Your task to perform on an android device: Open Maps and search for coffee Image 0: 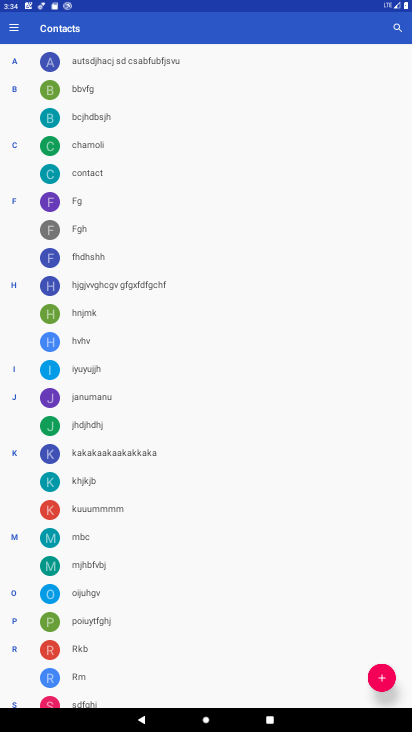
Step 0: press home button
Your task to perform on an android device: Open Maps and search for coffee Image 1: 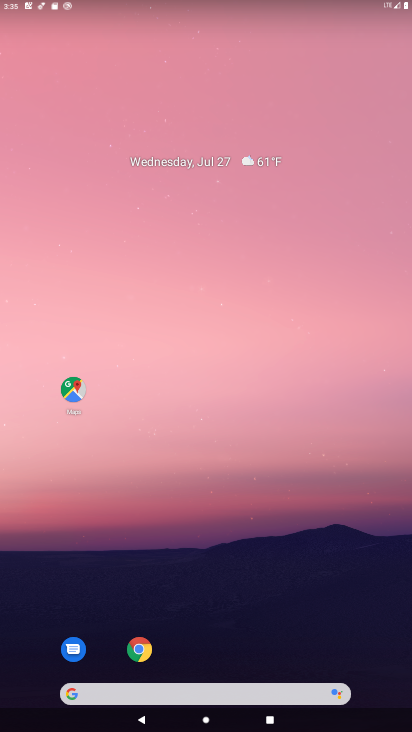
Step 1: drag from (190, 347) to (189, 231)
Your task to perform on an android device: Open Maps and search for coffee Image 2: 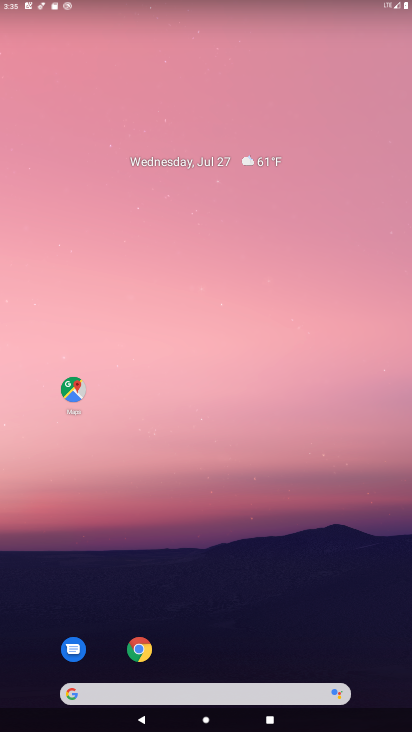
Step 2: drag from (187, 607) to (186, 258)
Your task to perform on an android device: Open Maps and search for coffee Image 3: 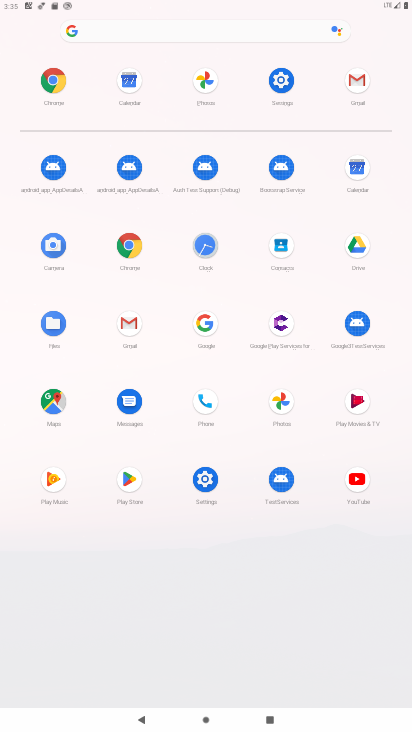
Step 3: click (45, 415)
Your task to perform on an android device: Open Maps and search for coffee Image 4: 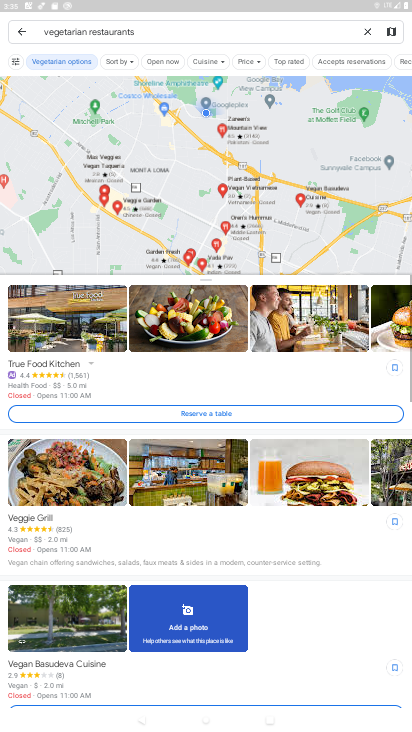
Step 4: click (21, 29)
Your task to perform on an android device: Open Maps and search for coffee Image 5: 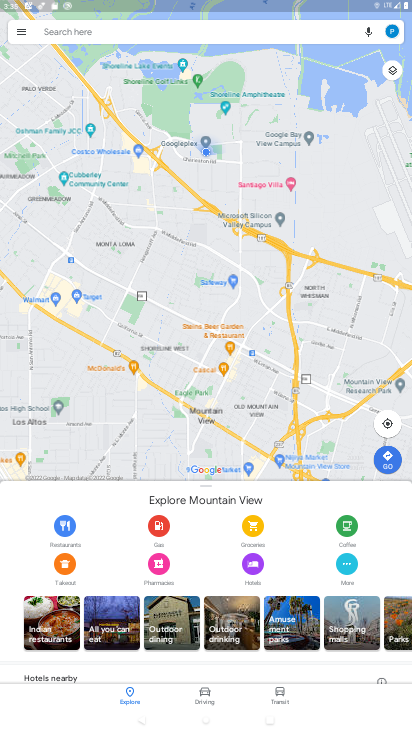
Step 5: click (100, 29)
Your task to perform on an android device: Open Maps and search for coffee Image 6: 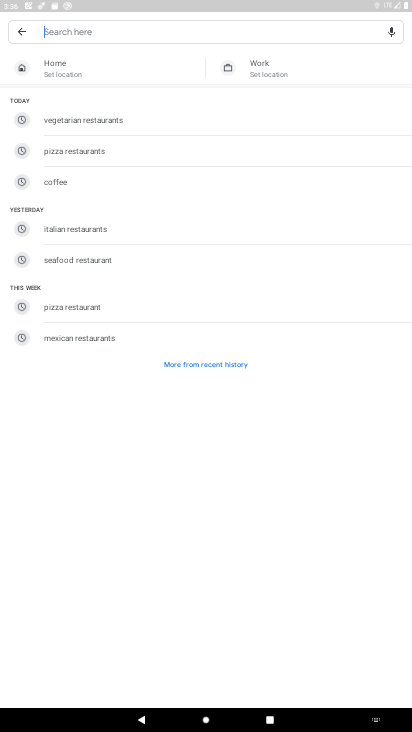
Step 6: click (61, 180)
Your task to perform on an android device: Open Maps and search for coffee Image 7: 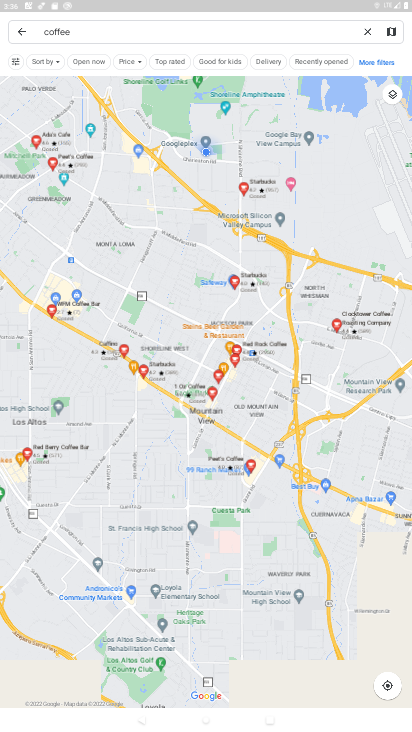
Step 7: task complete